Your task to perform on an android device: Search for "macbook" on costco.com, select the first entry, and add it to the cart. Image 0: 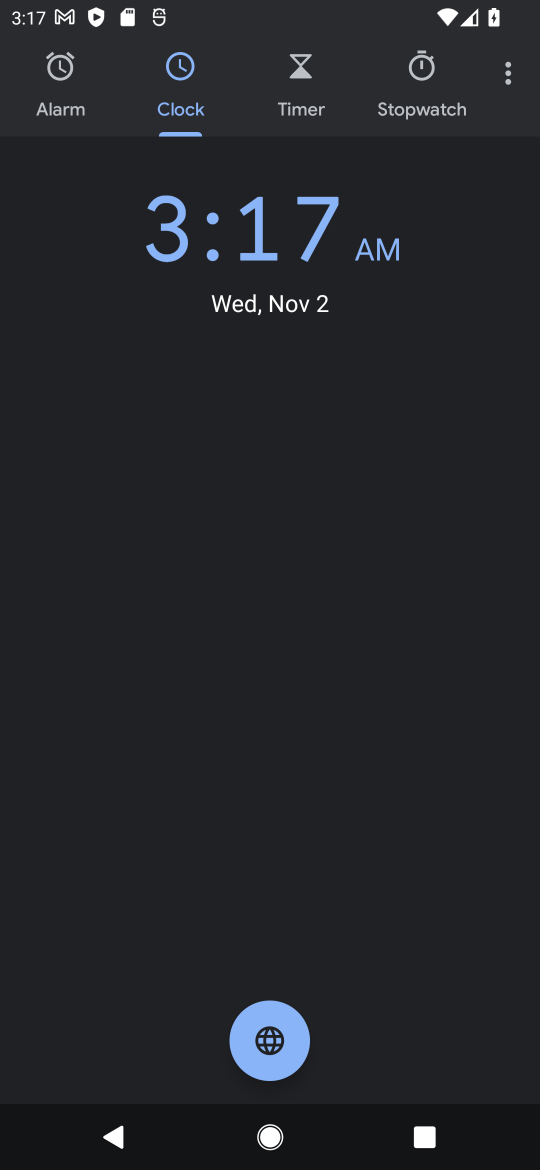
Step 0: press home button
Your task to perform on an android device: Search for "macbook" on costco.com, select the first entry, and add it to the cart. Image 1: 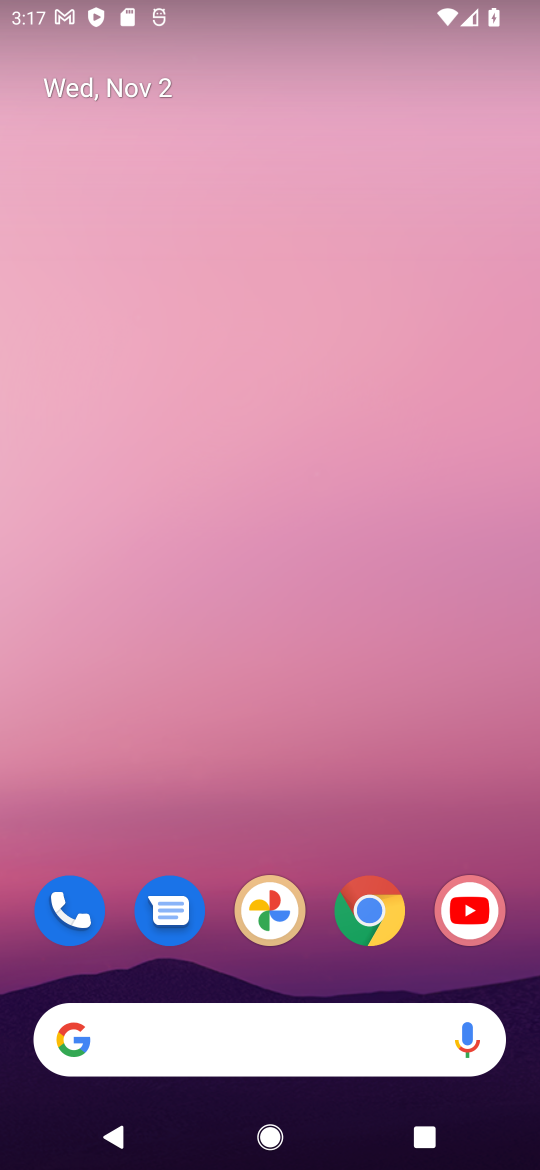
Step 1: click (371, 900)
Your task to perform on an android device: Search for "macbook" on costco.com, select the first entry, and add it to the cart. Image 2: 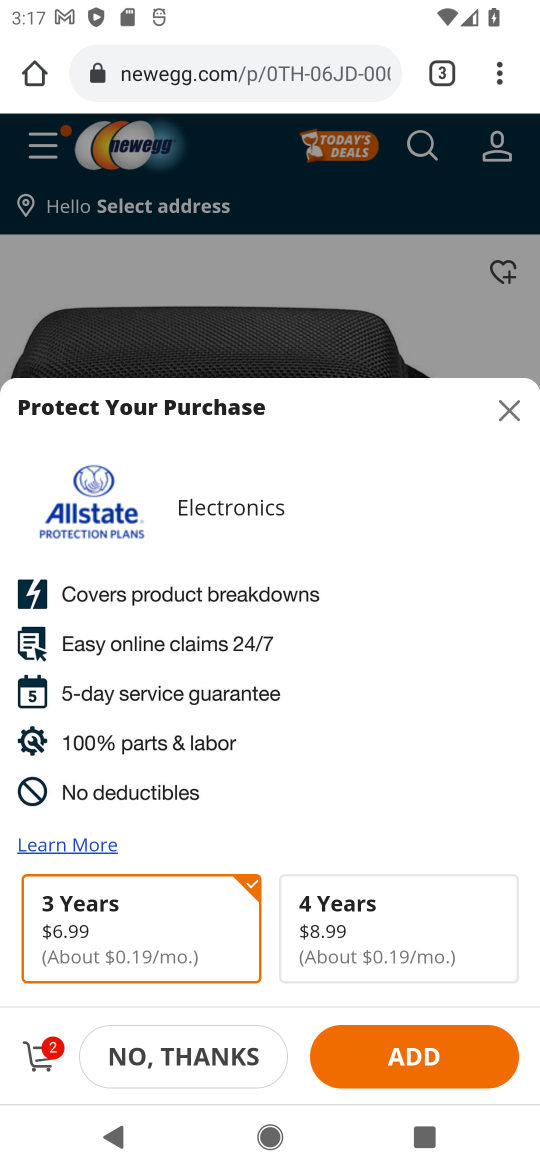
Step 2: click (445, 65)
Your task to perform on an android device: Search for "macbook" on costco.com, select the first entry, and add it to the cart. Image 3: 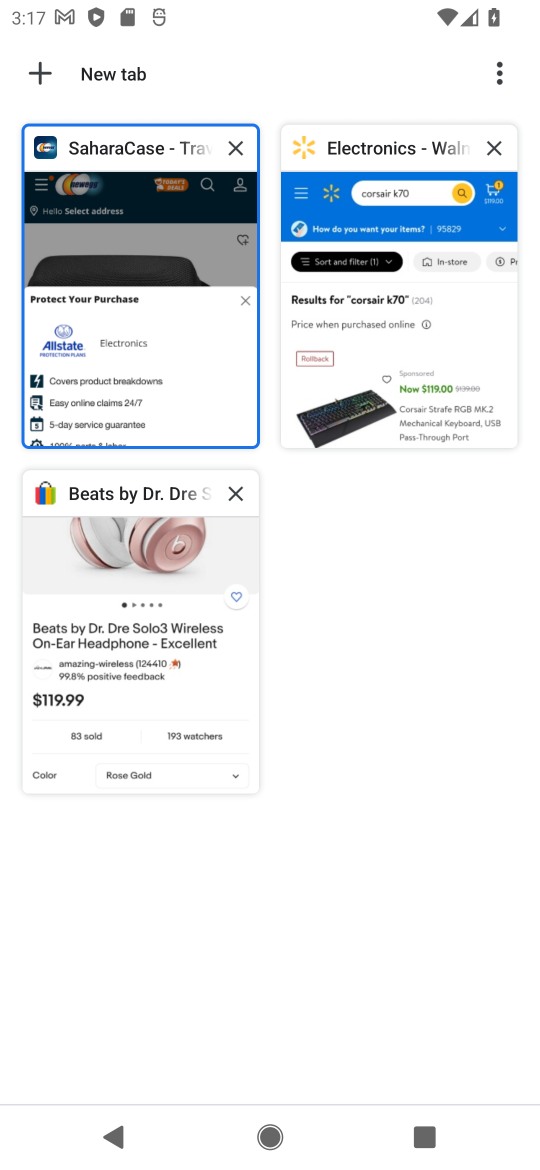
Step 3: click (32, 78)
Your task to perform on an android device: Search for "macbook" on costco.com, select the first entry, and add it to the cart. Image 4: 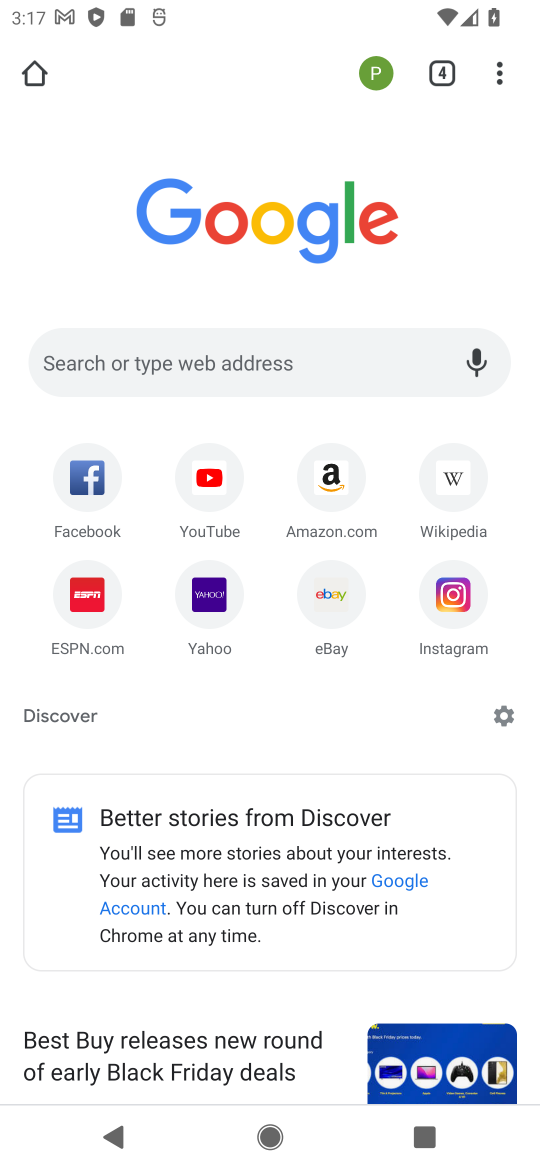
Step 4: click (205, 367)
Your task to perform on an android device: Search for "macbook" on costco.com, select the first entry, and add it to the cart. Image 5: 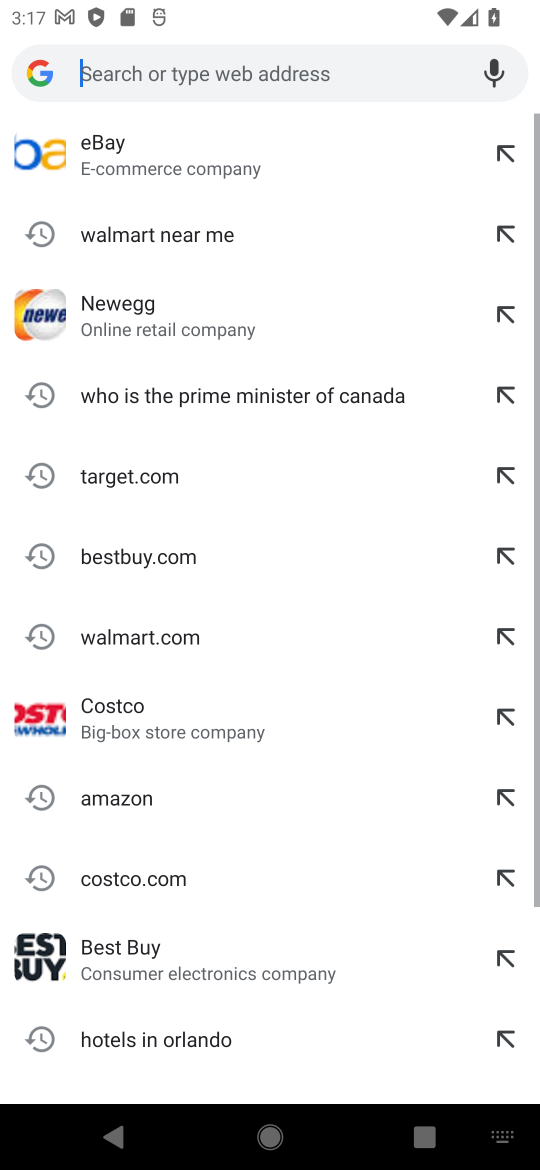
Step 5: type "costco"
Your task to perform on an android device: Search for "macbook" on costco.com, select the first entry, and add it to the cart. Image 6: 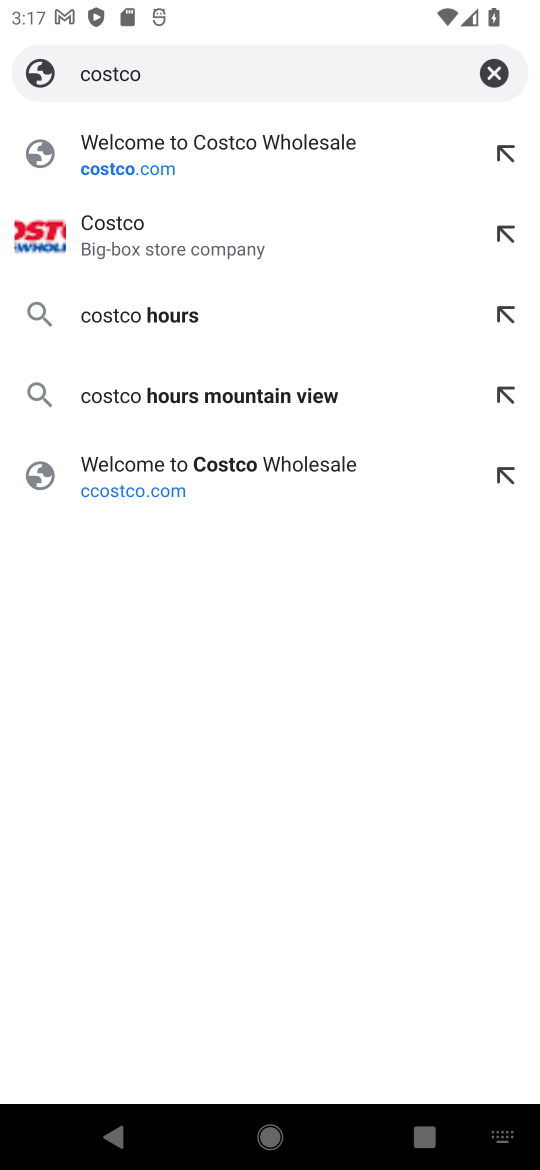
Step 6: click (108, 233)
Your task to perform on an android device: Search for "macbook" on costco.com, select the first entry, and add it to the cart. Image 7: 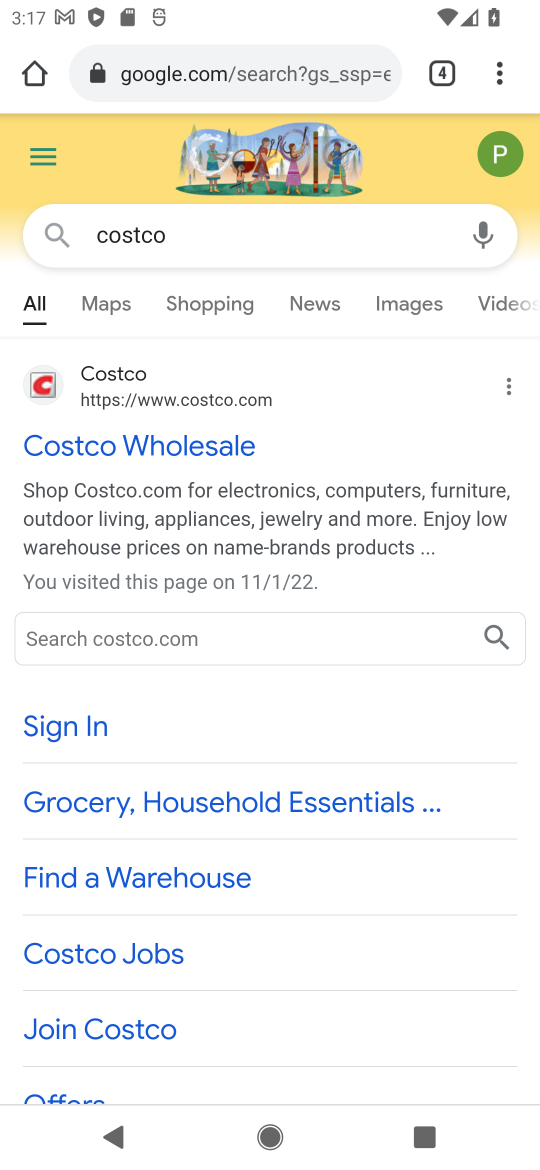
Step 7: click (114, 636)
Your task to perform on an android device: Search for "macbook" on costco.com, select the first entry, and add it to the cart. Image 8: 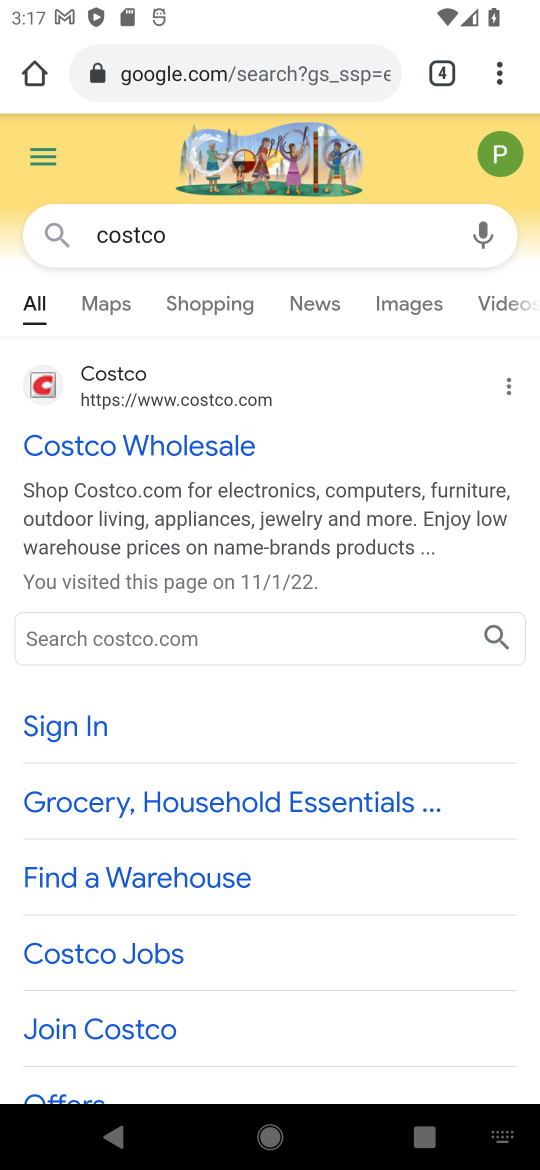
Step 8: type "macbook"
Your task to perform on an android device: Search for "macbook" on costco.com, select the first entry, and add it to the cart. Image 9: 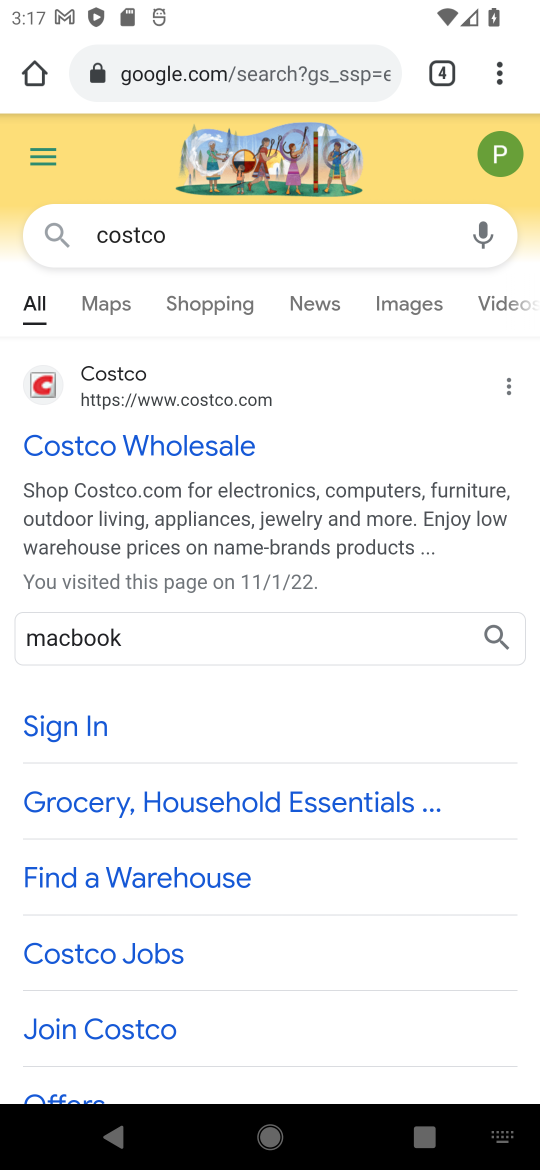
Step 9: click (483, 632)
Your task to perform on an android device: Search for "macbook" on costco.com, select the first entry, and add it to the cart. Image 10: 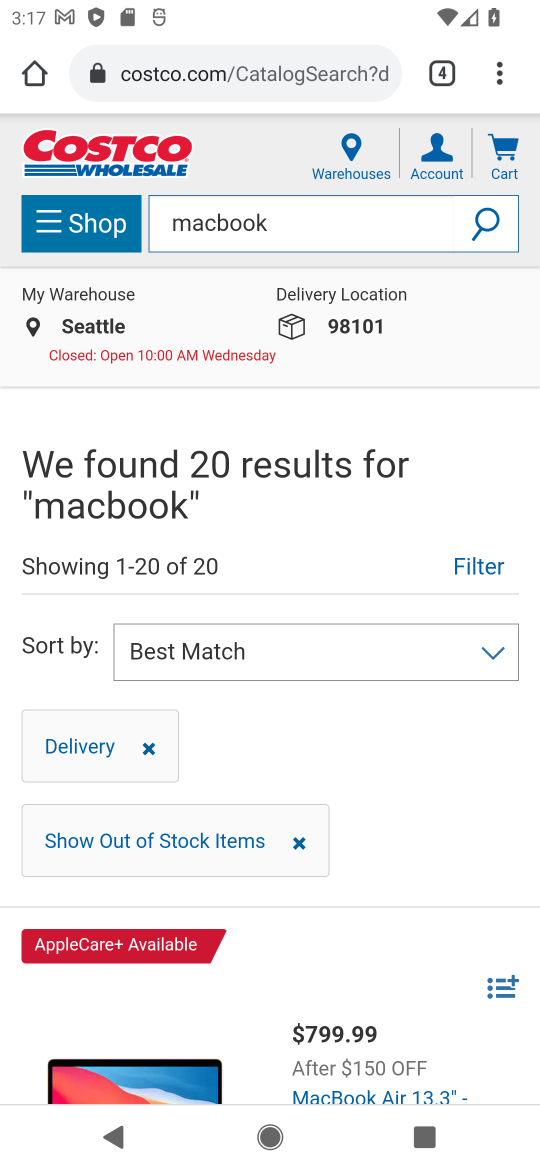
Step 10: drag from (328, 1051) to (401, 389)
Your task to perform on an android device: Search for "macbook" on costco.com, select the first entry, and add it to the cart. Image 11: 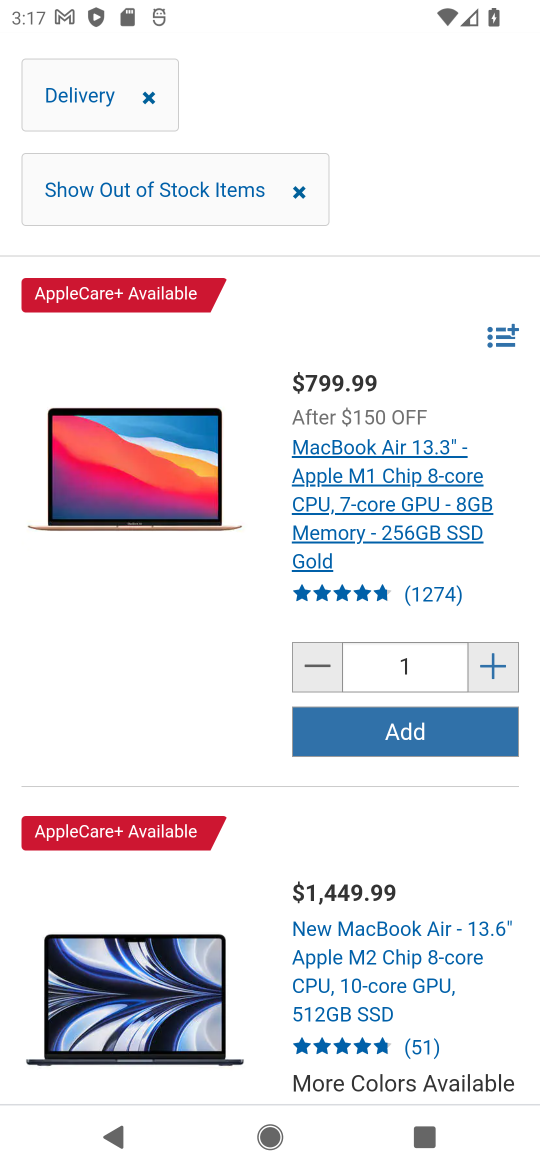
Step 11: click (429, 715)
Your task to perform on an android device: Search for "macbook" on costco.com, select the first entry, and add it to the cart. Image 12: 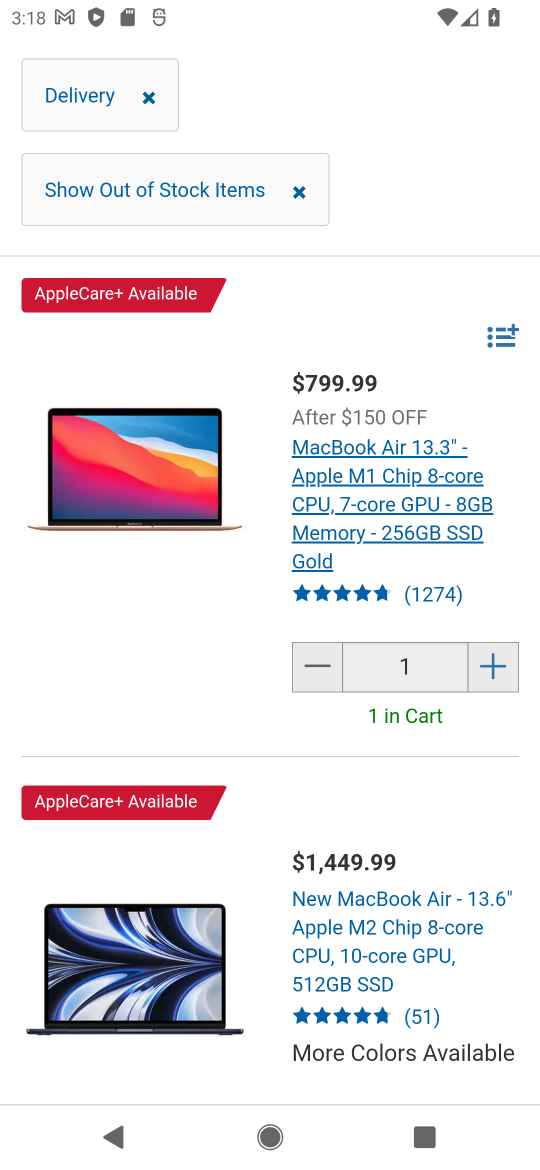
Step 12: task complete